Your task to perform on an android device: Open my contact list Image 0: 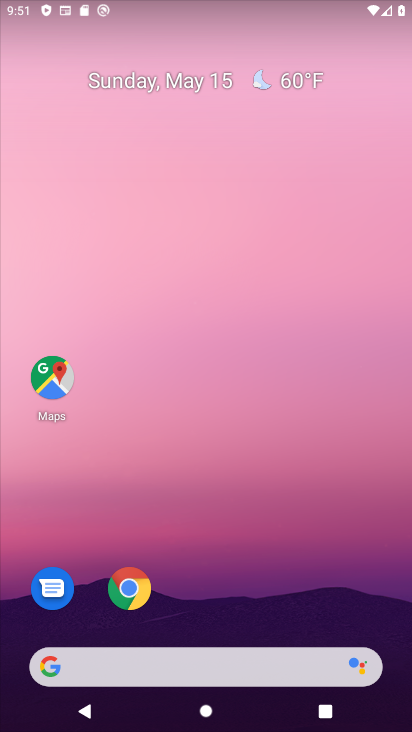
Step 0: drag from (219, 628) to (205, 29)
Your task to perform on an android device: Open my contact list Image 1: 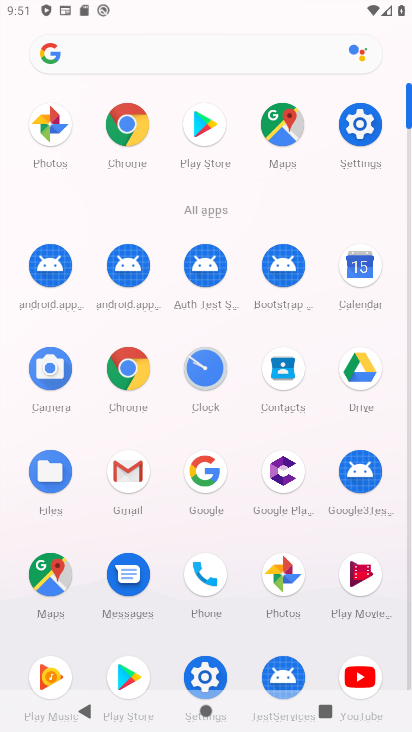
Step 1: click (285, 385)
Your task to perform on an android device: Open my contact list Image 2: 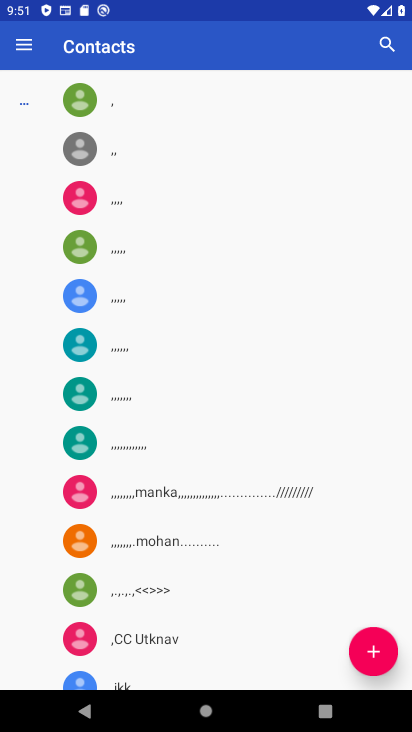
Step 2: task complete